Your task to perform on an android device: Open Youtube and go to "Your channel" Image 0: 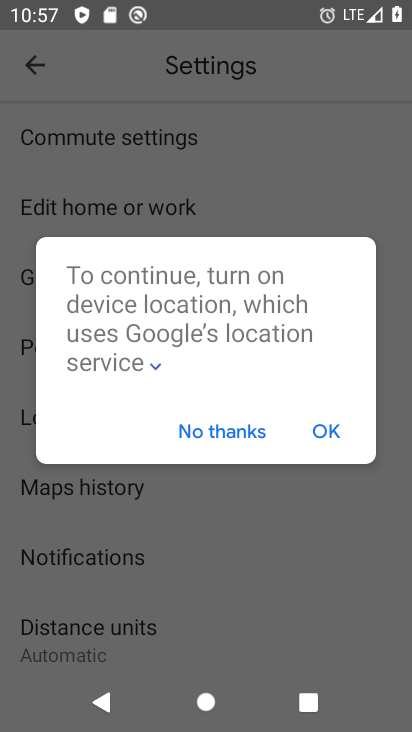
Step 0: press home button
Your task to perform on an android device: Open Youtube and go to "Your channel" Image 1: 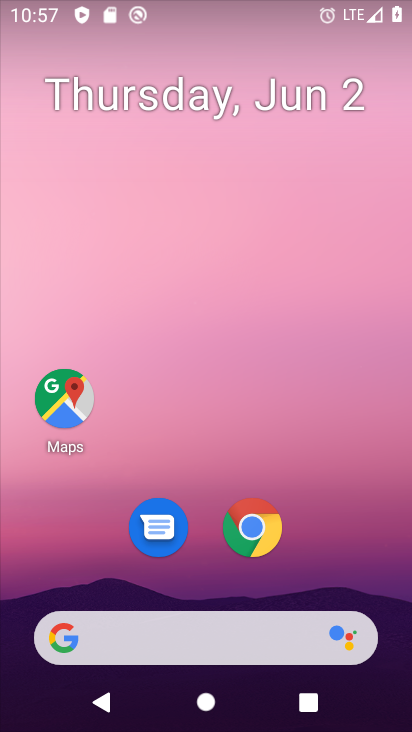
Step 1: drag from (188, 628) to (200, 160)
Your task to perform on an android device: Open Youtube and go to "Your channel" Image 2: 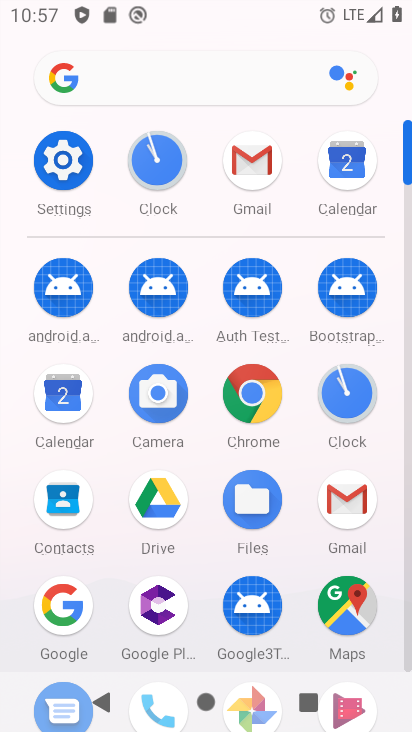
Step 2: drag from (213, 639) to (192, 165)
Your task to perform on an android device: Open Youtube and go to "Your channel" Image 3: 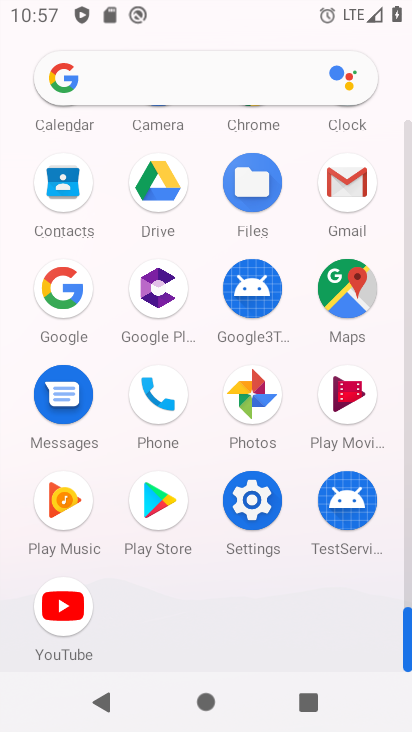
Step 3: click (70, 598)
Your task to perform on an android device: Open Youtube and go to "Your channel" Image 4: 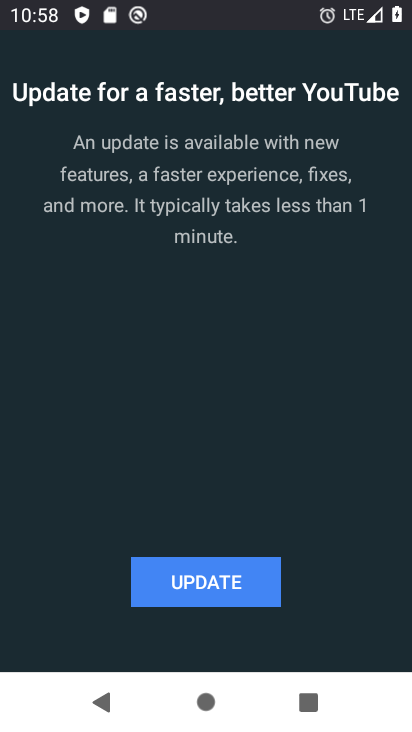
Step 4: click (251, 592)
Your task to perform on an android device: Open Youtube and go to "Your channel" Image 5: 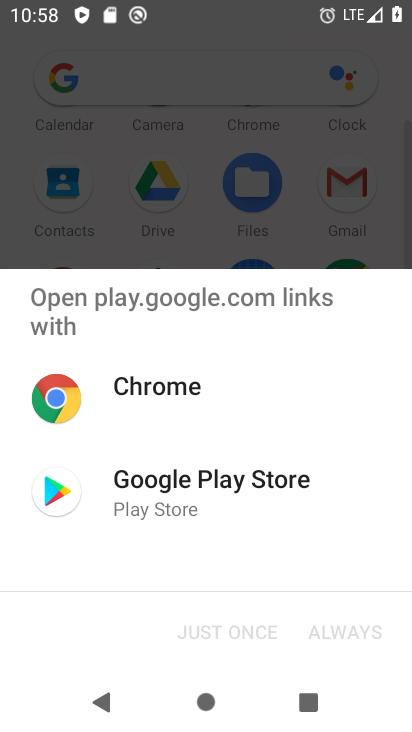
Step 5: click (134, 500)
Your task to perform on an android device: Open Youtube and go to "Your channel" Image 6: 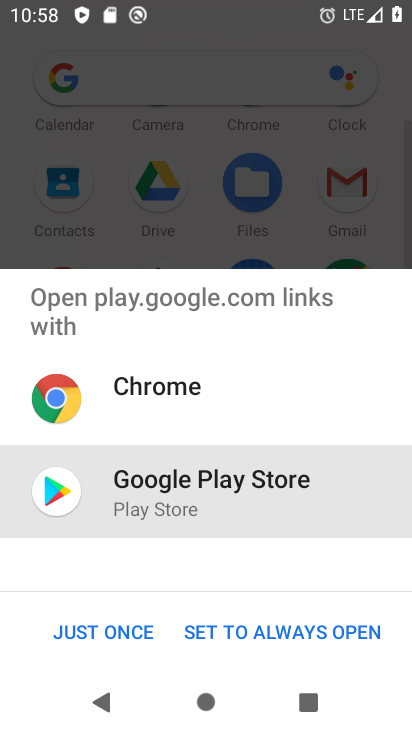
Step 6: click (113, 637)
Your task to perform on an android device: Open Youtube and go to "Your channel" Image 7: 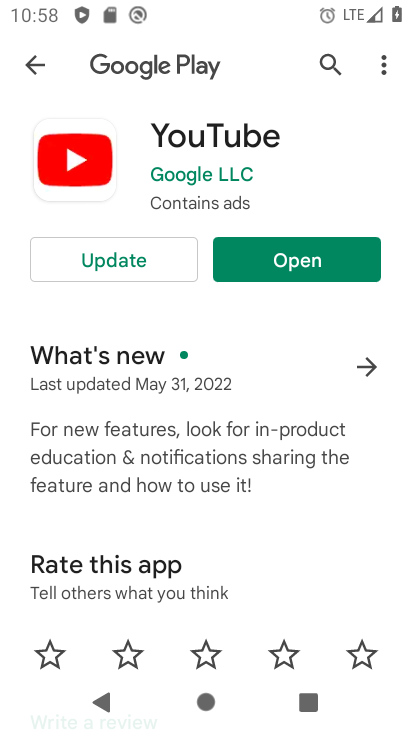
Step 7: click (119, 270)
Your task to perform on an android device: Open Youtube and go to "Your channel" Image 8: 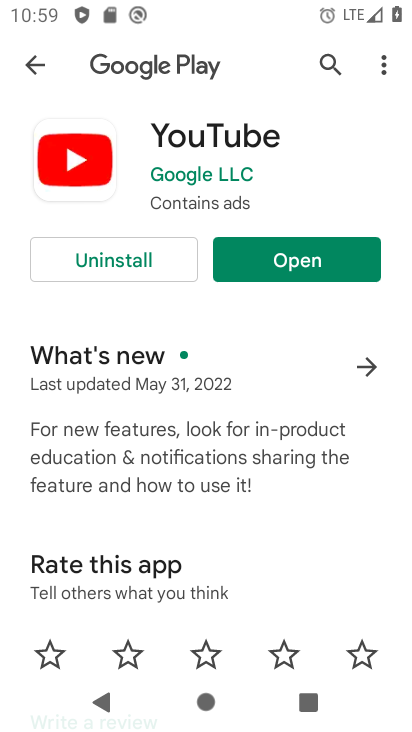
Step 8: click (256, 275)
Your task to perform on an android device: Open Youtube and go to "Your channel" Image 9: 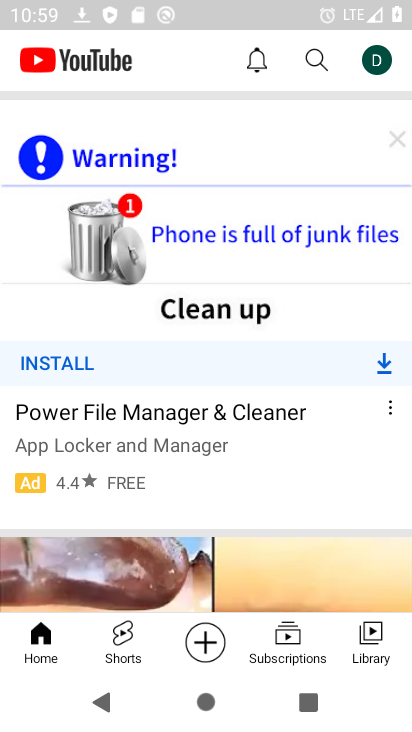
Step 9: click (370, 50)
Your task to perform on an android device: Open Youtube and go to "Your channel" Image 10: 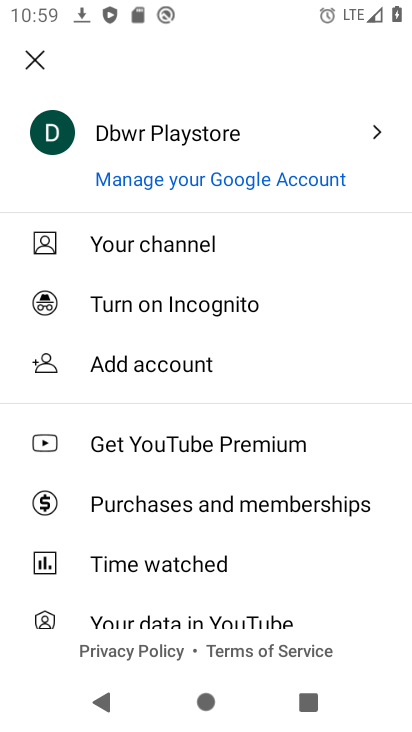
Step 10: click (144, 243)
Your task to perform on an android device: Open Youtube and go to "Your channel" Image 11: 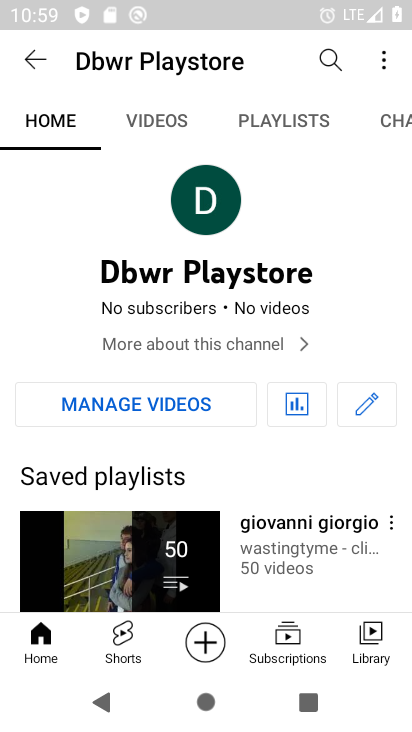
Step 11: task complete